Your task to perform on an android device: Open calendar and show me the fourth week of next month Image 0: 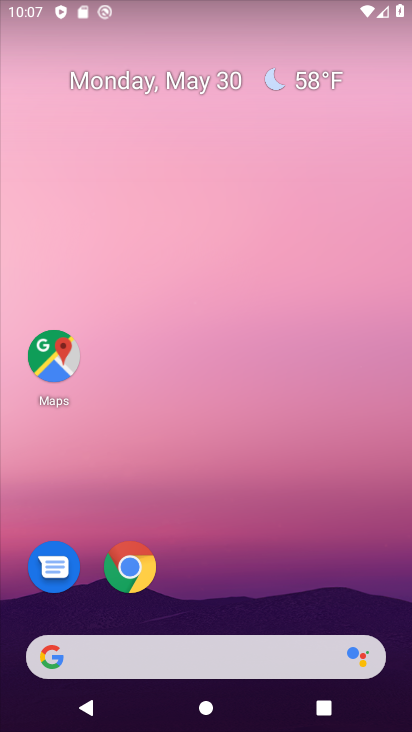
Step 0: drag from (203, 631) to (207, 183)
Your task to perform on an android device: Open calendar and show me the fourth week of next month Image 1: 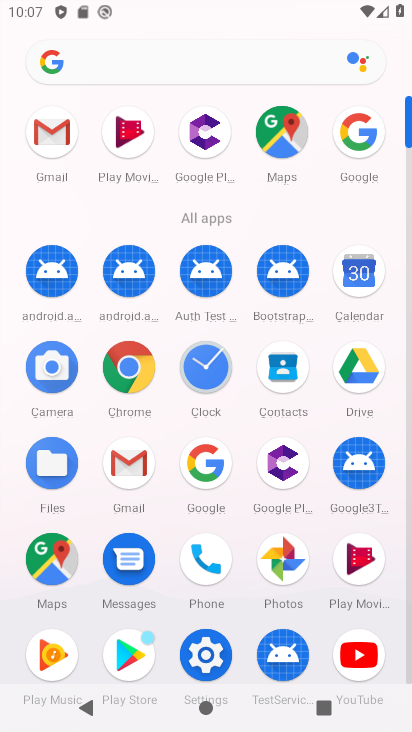
Step 1: click (362, 277)
Your task to perform on an android device: Open calendar and show me the fourth week of next month Image 2: 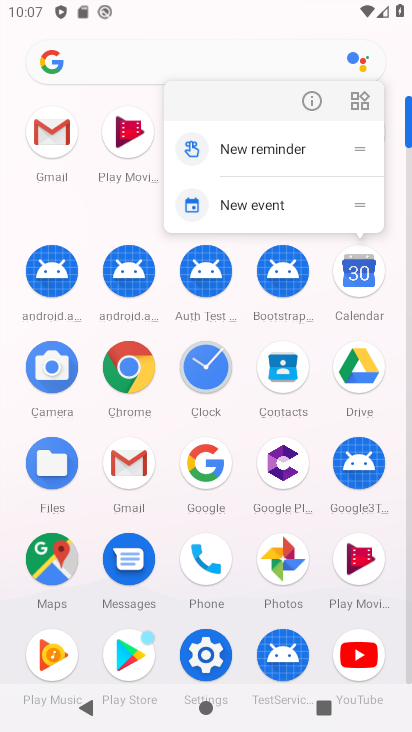
Step 2: click (355, 277)
Your task to perform on an android device: Open calendar and show me the fourth week of next month Image 3: 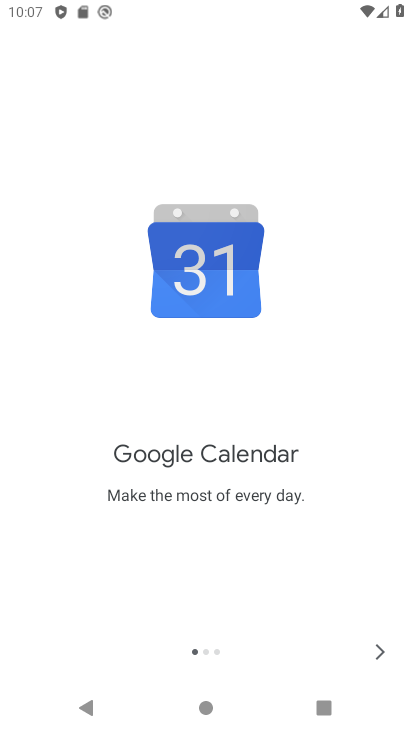
Step 3: click (381, 654)
Your task to perform on an android device: Open calendar and show me the fourth week of next month Image 4: 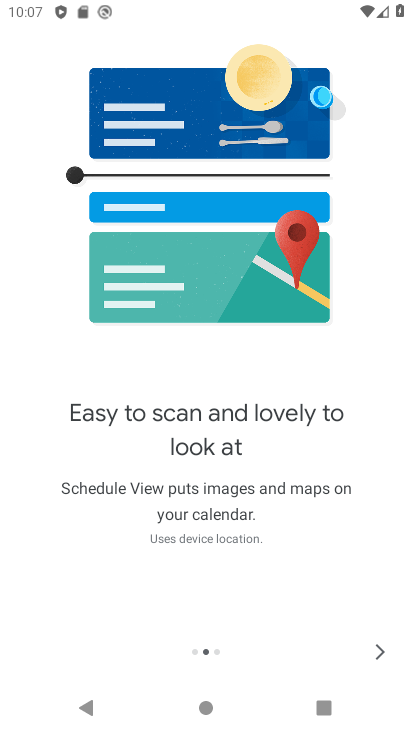
Step 4: click (372, 651)
Your task to perform on an android device: Open calendar and show me the fourth week of next month Image 5: 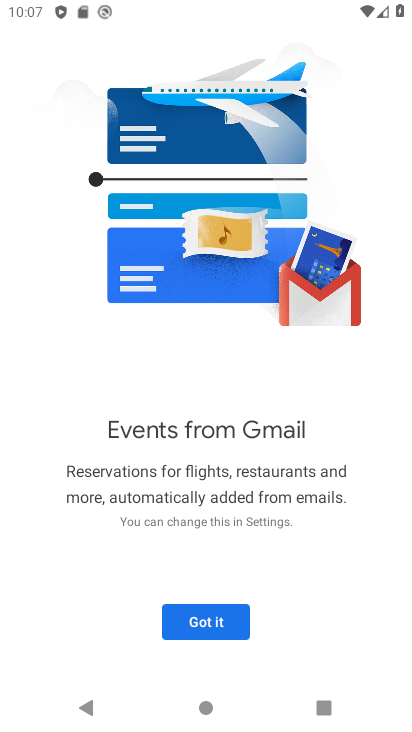
Step 5: click (197, 629)
Your task to perform on an android device: Open calendar and show me the fourth week of next month Image 6: 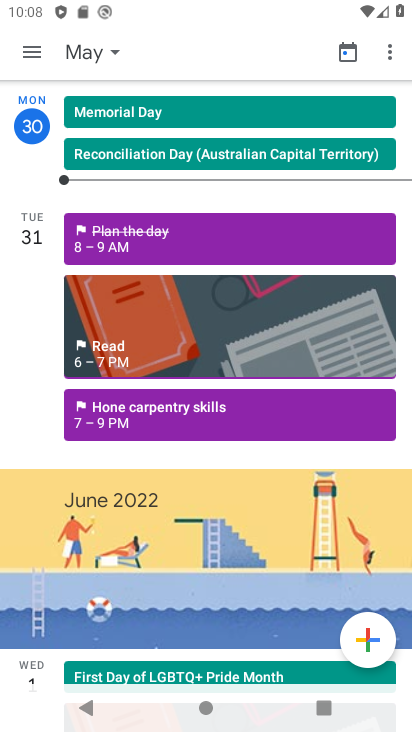
Step 6: click (79, 54)
Your task to perform on an android device: Open calendar and show me the fourth week of next month Image 7: 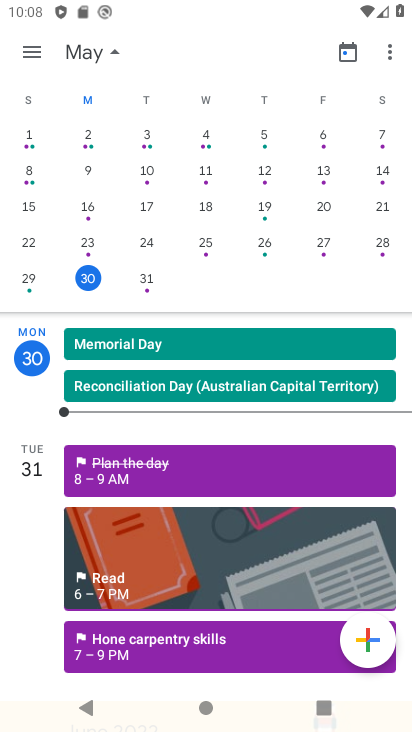
Step 7: drag from (20, 207) to (35, 272)
Your task to perform on an android device: Open calendar and show me the fourth week of next month Image 8: 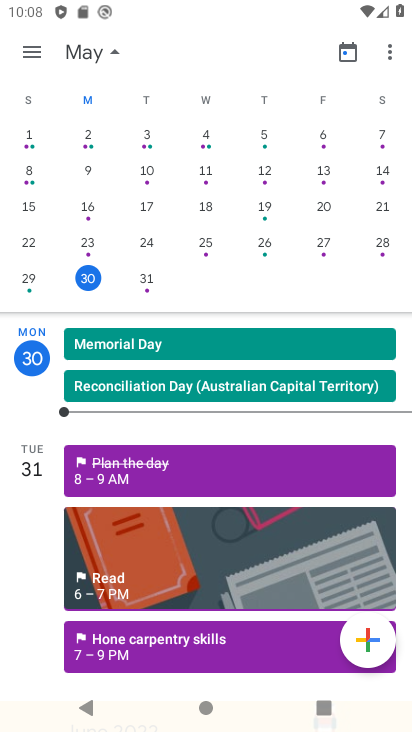
Step 8: drag from (385, 217) to (7, 269)
Your task to perform on an android device: Open calendar and show me the fourth week of next month Image 9: 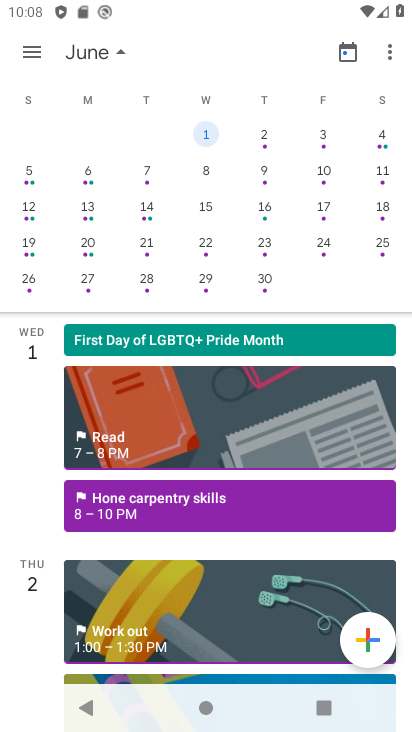
Step 9: click (30, 244)
Your task to perform on an android device: Open calendar and show me the fourth week of next month Image 10: 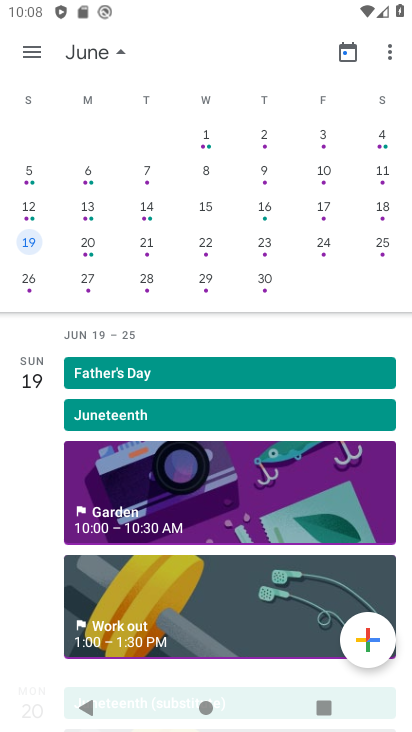
Step 10: task complete